Your task to perform on an android device: visit the assistant section in the google photos Image 0: 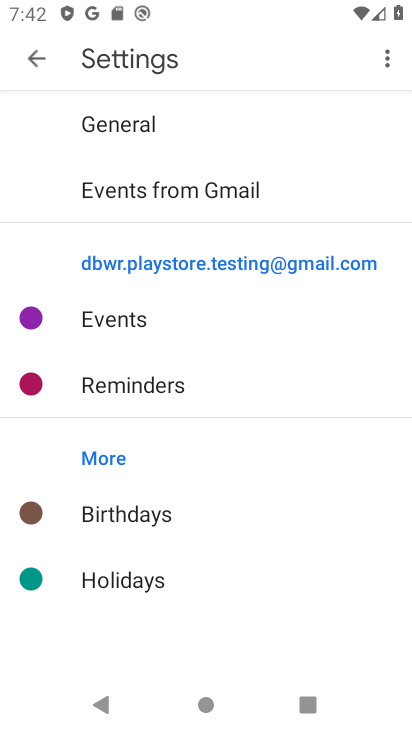
Step 0: press home button
Your task to perform on an android device: visit the assistant section in the google photos Image 1: 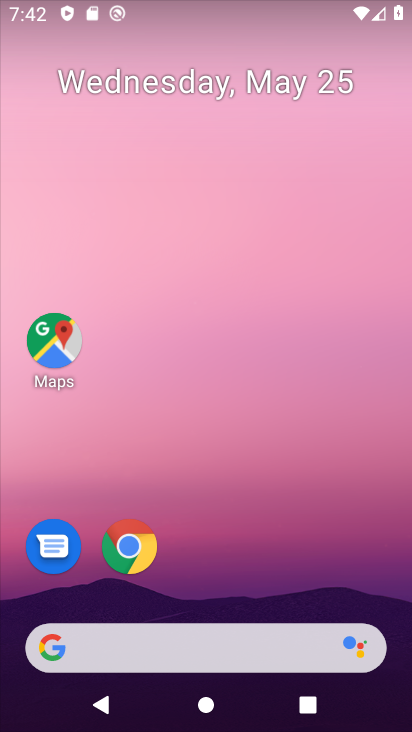
Step 1: drag from (208, 219) to (225, 40)
Your task to perform on an android device: visit the assistant section in the google photos Image 2: 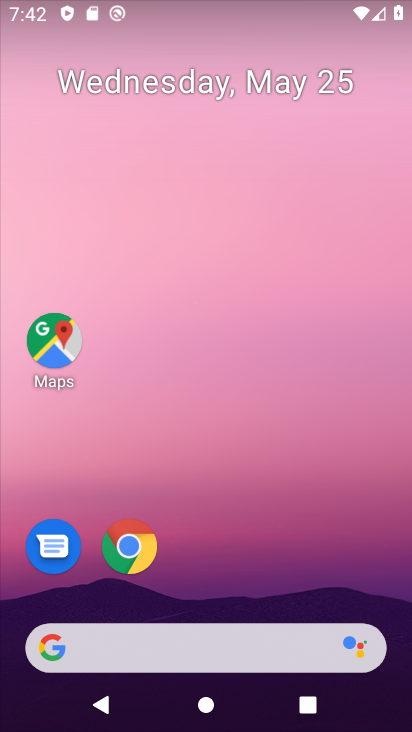
Step 2: click (232, 185)
Your task to perform on an android device: visit the assistant section in the google photos Image 3: 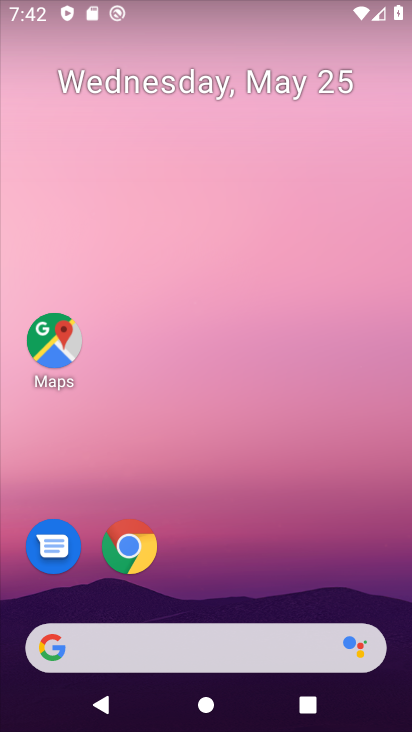
Step 3: drag from (217, 559) to (216, 1)
Your task to perform on an android device: visit the assistant section in the google photos Image 4: 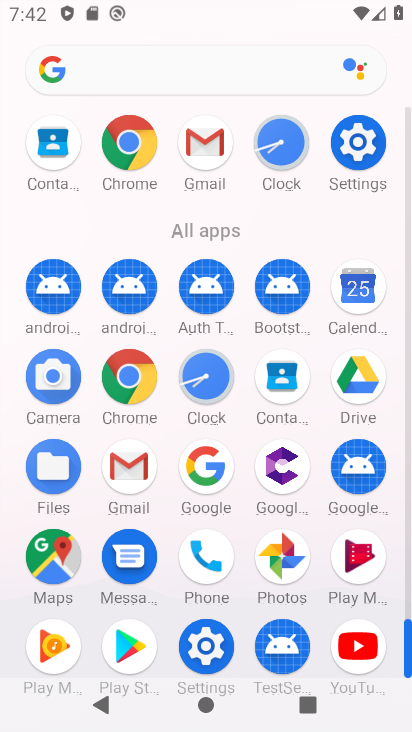
Step 4: click (275, 555)
Your task to perform on an android device: visit the assistant section in the google photos Image 5: 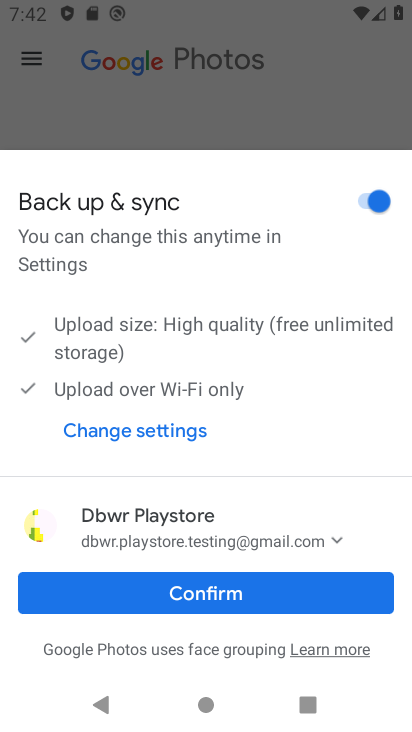
Step 5: click (197, 594)
Your task to perform on an android device: visit the assistant section in the google photos Image 6: 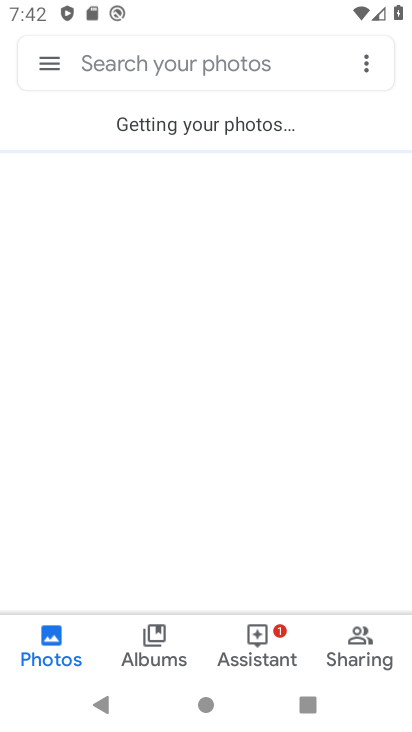
Step 6: click (254, 645)
Your task to perform on an android device: visit the assistant section in the google photos Image 7: 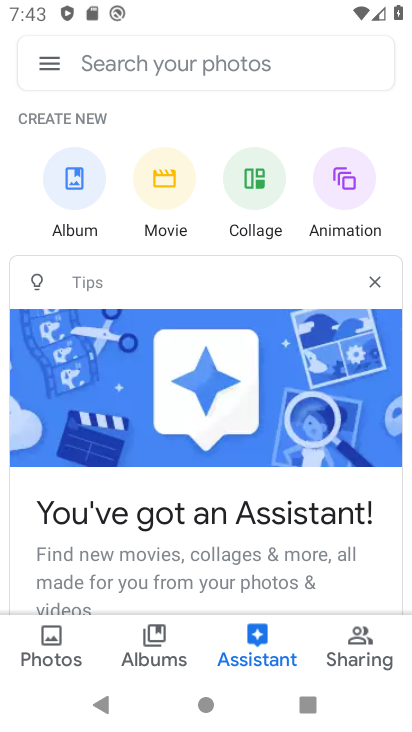
Step 7: task complete